Your task to perform on an android device: turn on airplane mode Image 0: 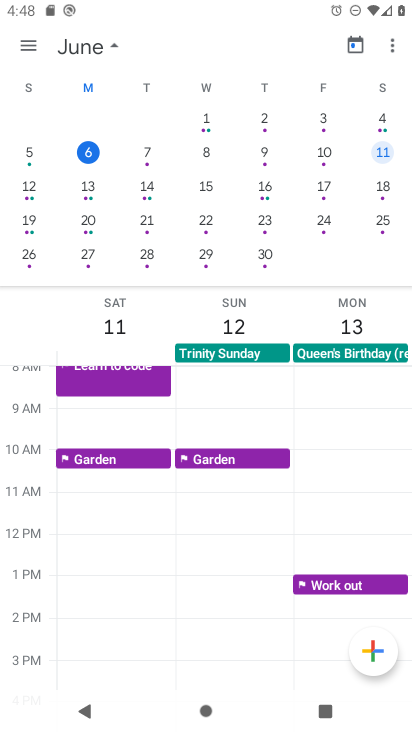
Step 0: press home button
Your task to perform on an android device: turn on airplane mode Image 1: 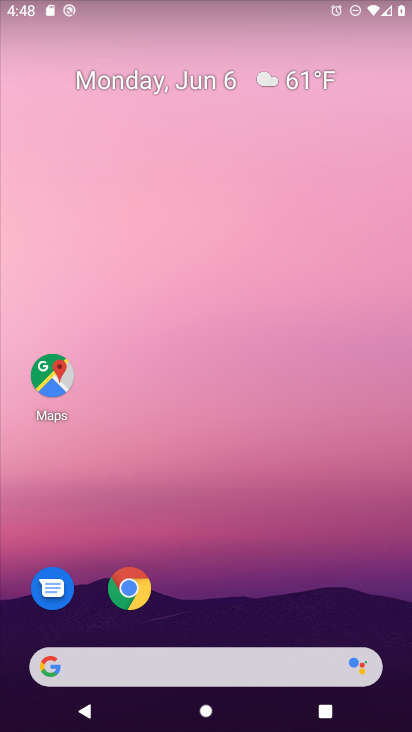
Step 1: drag from (233, 594) to (216, 153)
Your task to perform on an android device: turn on airplane mode Image 2: 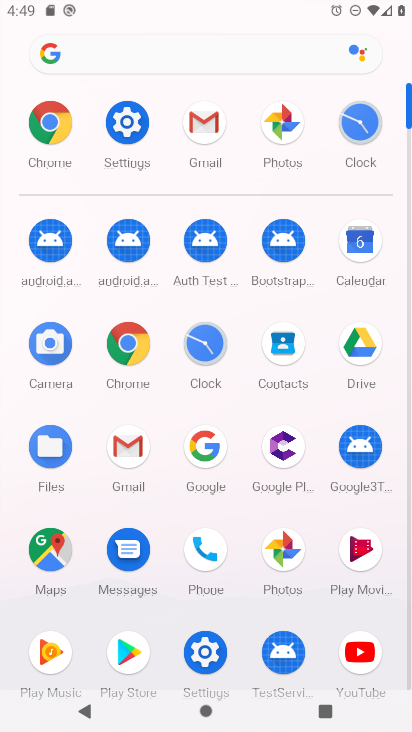
Step 2: click (130, 129)
Your task to perform on an android device: turn on airplane mode Image 3: 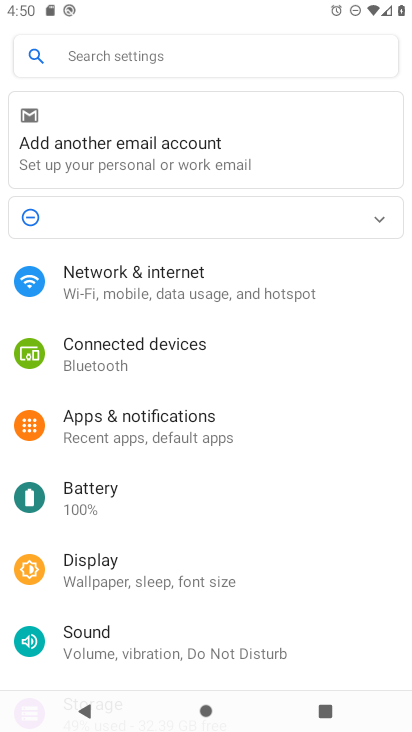
Step 3: click (242, 294)
Your task to perform on an android device: turn on airplane mode Image 4: 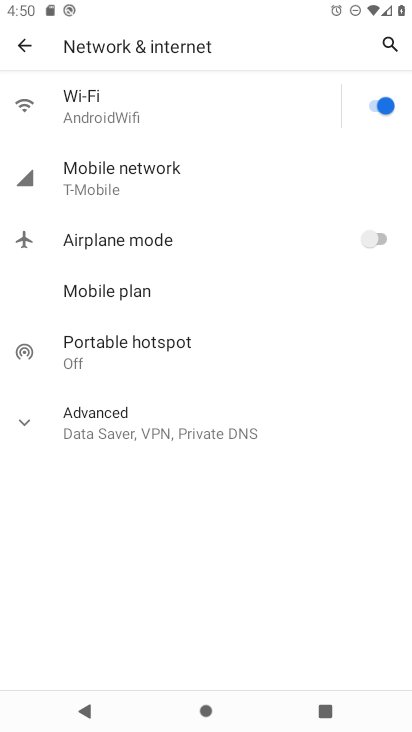
Step 4: click (366, 257)
Your task to perform on an android device: turn on airplane mode Image 5: 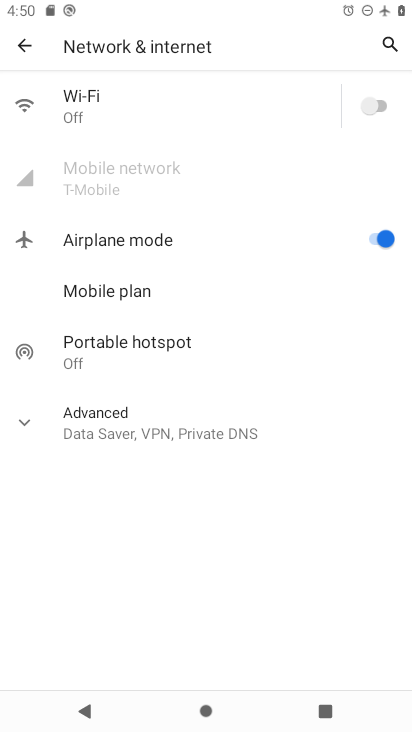
Step 5: task complete